Your task to perform on an android device: change notifications settings Image 0: 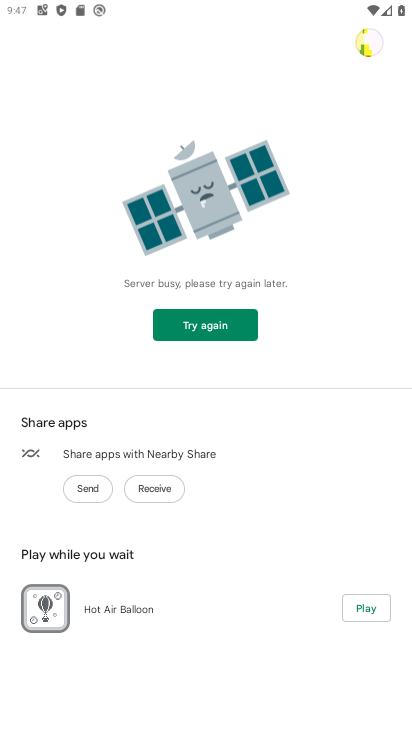
Step 0: press home button
Your task to perform on an android device: change notifications settings Image 1: 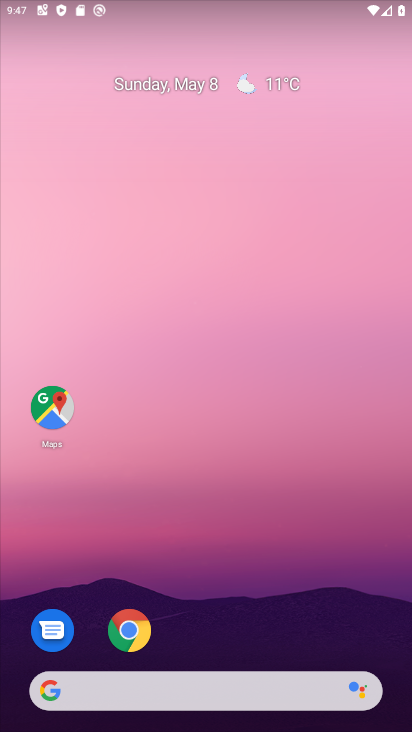
Step 1: drag from (350, 609) to (278, 46)
Your task to perform on an android device: change notifications settings Image 2: 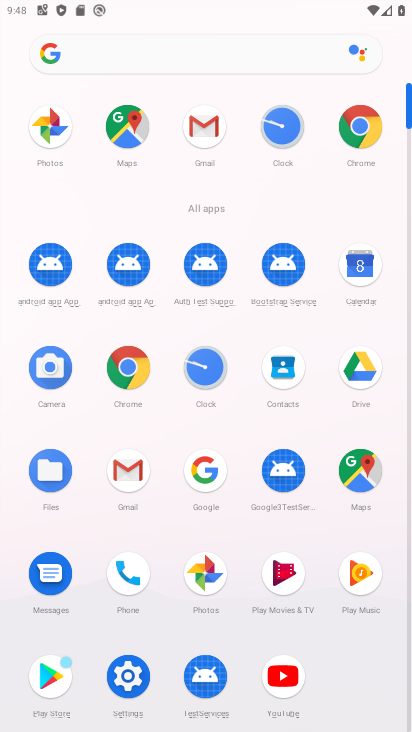
Step 2: click (132, 678)
Your task to perform on an android device: change notifications settings Image 3: 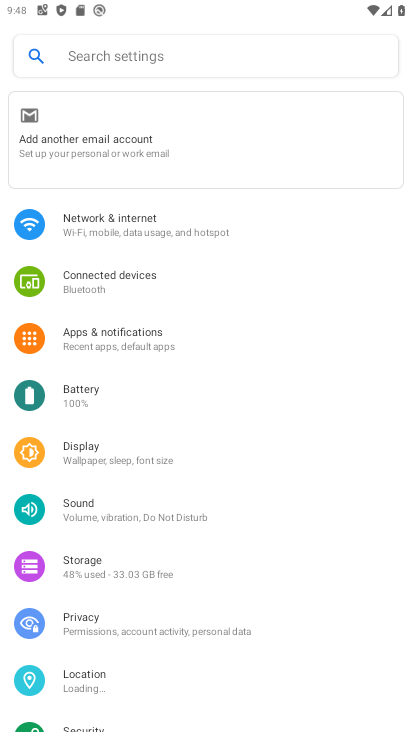
Step 3: click (171, 349)
Your task to perform on an android device: change notifications settings Image 4: 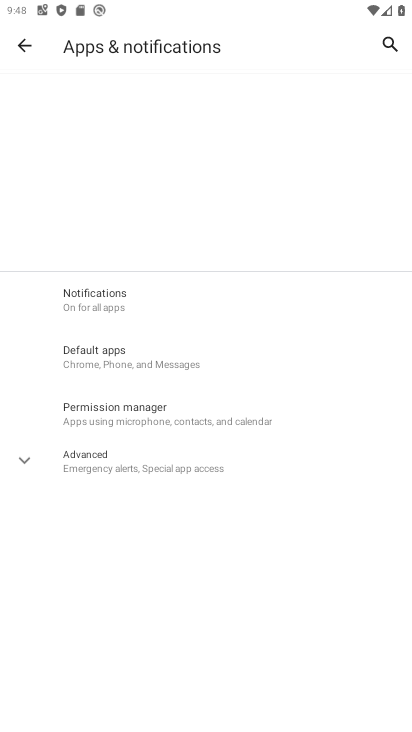
Step 4: click (105, 295)
Your task to perform on an android device: change notifications settings Image 5: 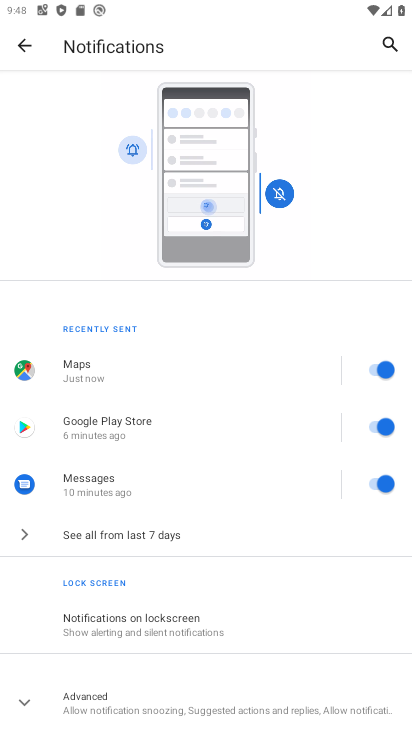
Step 5: task complete